Your task to perform on an android device: visit the assistant section in the google photos Image 0: 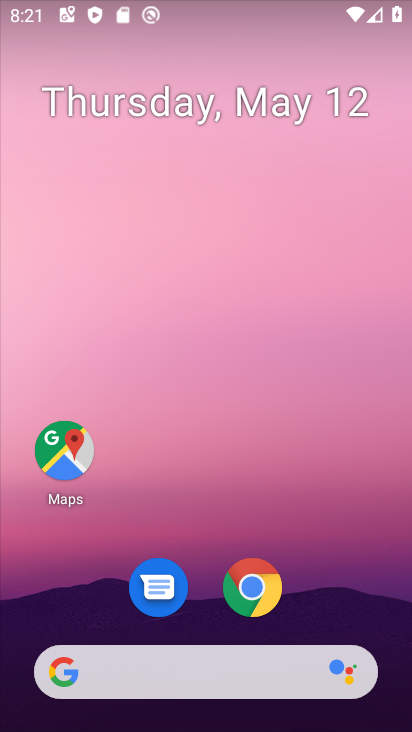
Step 0: drag from (344, 527) to (351, 258)
Your task to perform on an android device: visit the assistant section in the google photos Image 1: 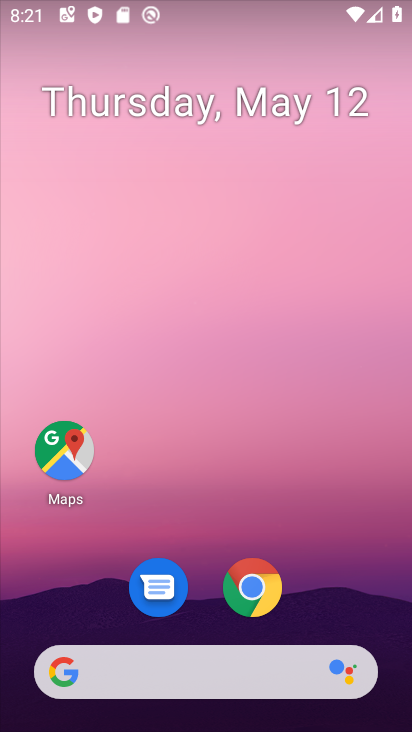
Step 1: drag from (335, 494) to (351, 260)
Your task to perform on an android device: visit the assistant section in the google photos Image 2: 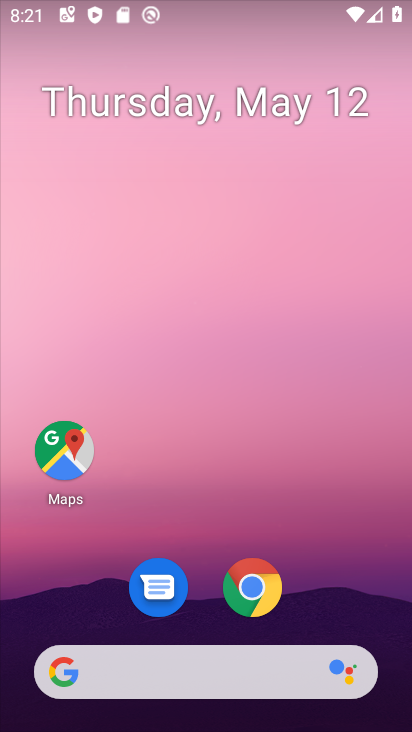
Step 2: drag from (307, 617) to (321, 160)
Your task to perform on an android device: visit the assistant section in the google photos Image 3: 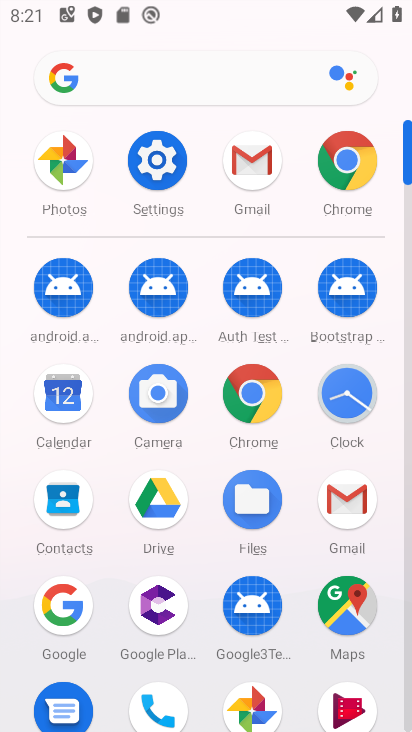
Step 3: click (63, 147)
Your task to perform on an android device: visit the assistant section in the google photos Image 4: 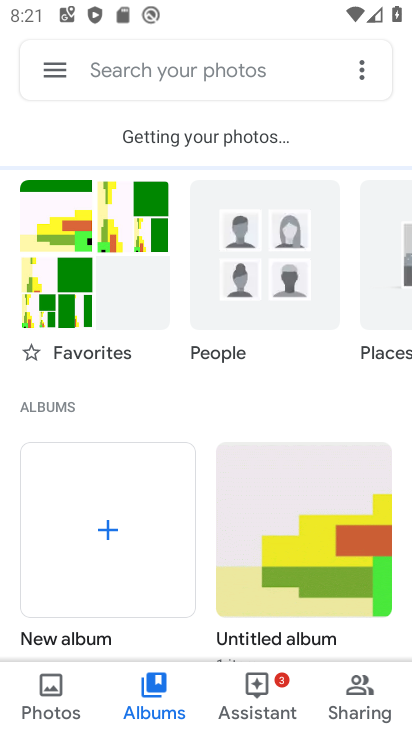
Step 4: click (241, 690)
Your task to perform on an android device: visit the assistant section in the google photos Image 5: 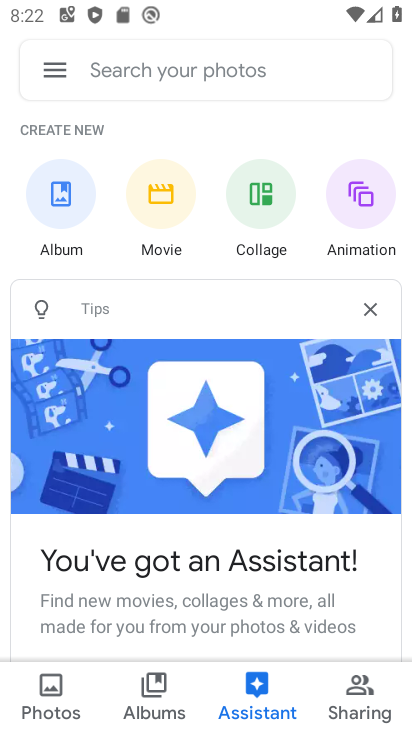
Step 5: task complete